Your task to perform on an android device: turn off javascript in the chrome app Image 0: 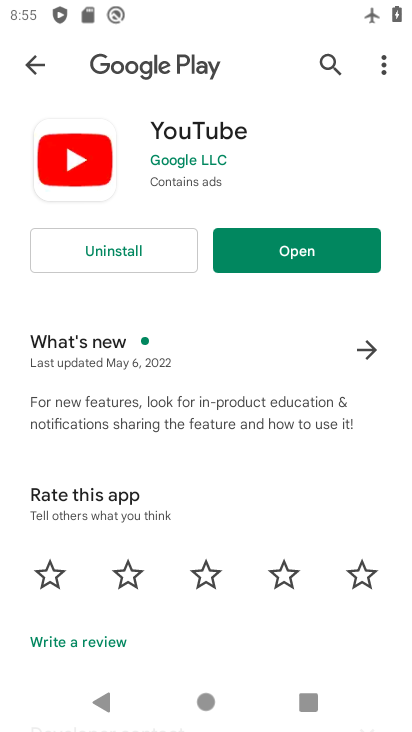
Step 0: press home button
Your task to perform on an android device: turn off javascript in the chrome app Image 1: 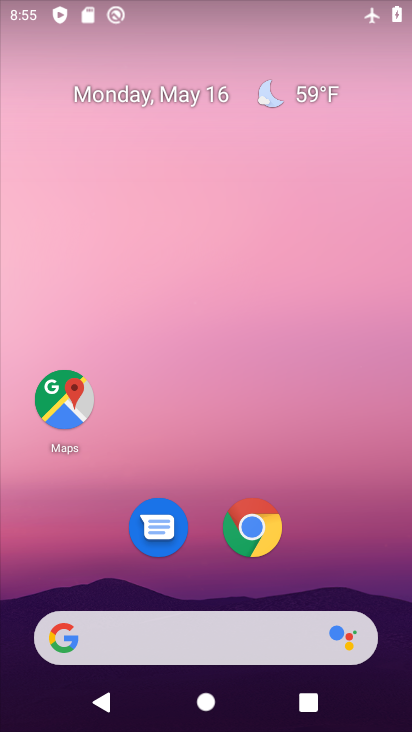
Step 1: drag from (397, 664) to (401, 295)
Your task to perform on an android device: turn off javascript in the chrome app Image 2: 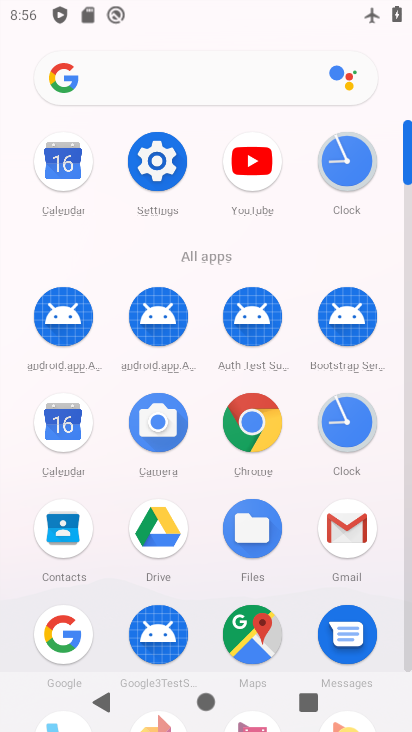
Step 2: click (252, 409)
Your task to perform on an android device: turn off javascript in the chrome app Image 3: 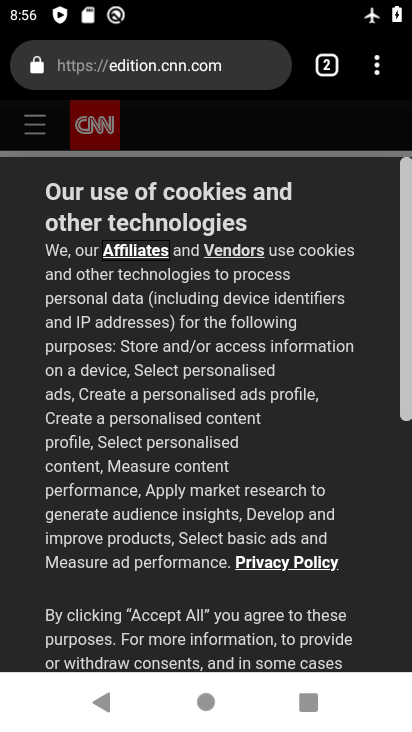
Step 3: click (378, 61)
Your task to perform on an android device: turn off javascript in the chrome app Image 4: 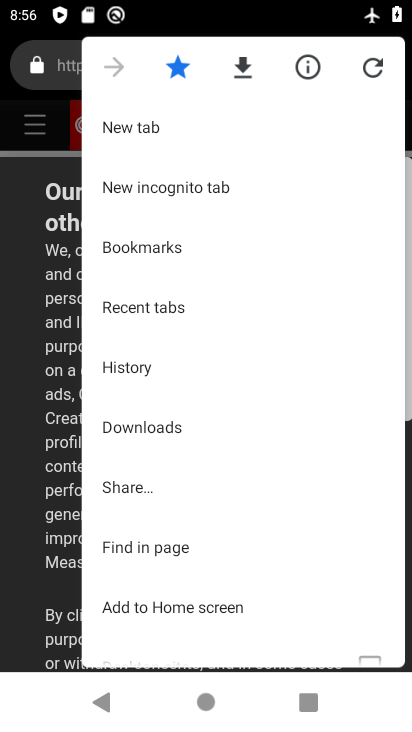
Step 4: drag from (289, 609) to (294, 238)
Your task to perform on an android device: turn off javascript in the chrome app Image 5: 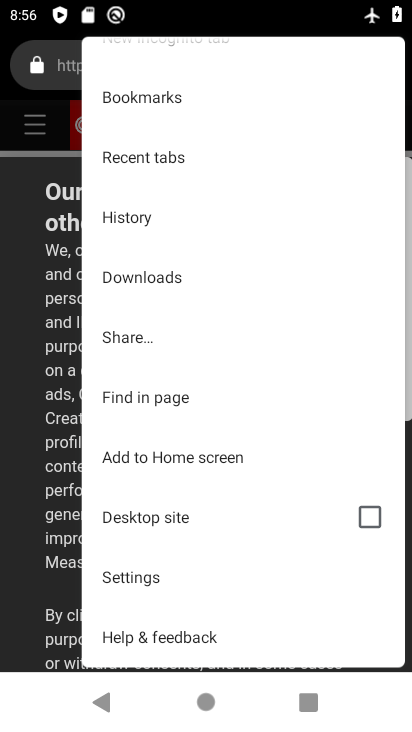
Step 5: click (140, 572)
Your task to perform on an android device: turn off javascript in the chrome app Image 6: 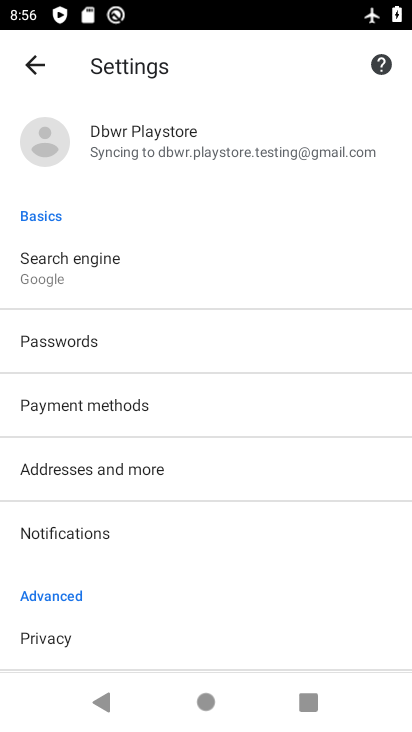
Step 6: drag from (213, 617) to (230, 334)
Your task to perform on an android device: turn off javascript in the chrome app Image 7: 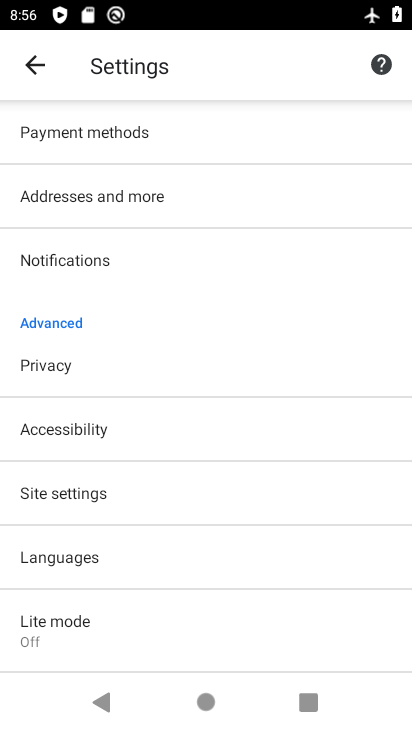
Step 7: click (68, 493)
Your task to perform on an android device: turn off javascript in the chrome app Image 8: 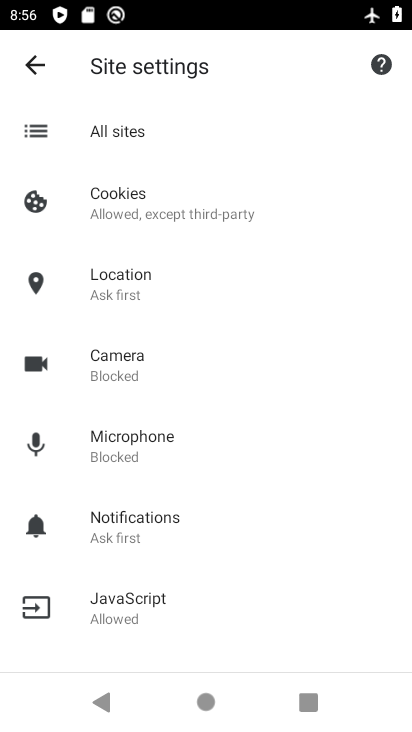
Step 8: drag from (261, 602) to (278, 395)
Your task to perform on an android device: turn off javascript in the chrome app Image 9: 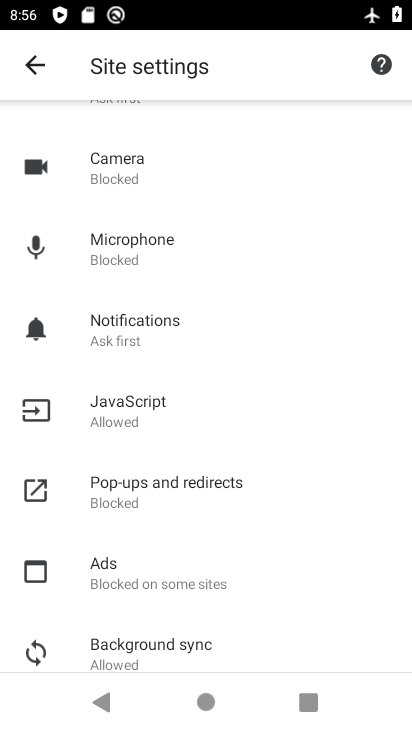
Step 9: click (122, 410)
Your task to perform on an android device: turn off javascript in the chrome app Image 10: 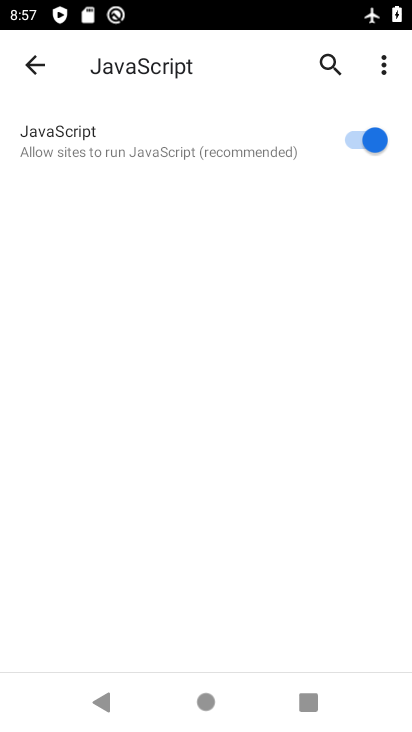
Step 10: click (349, 138)
Your task to perform on an android device: turn off javascript in the chrome app Image 11: 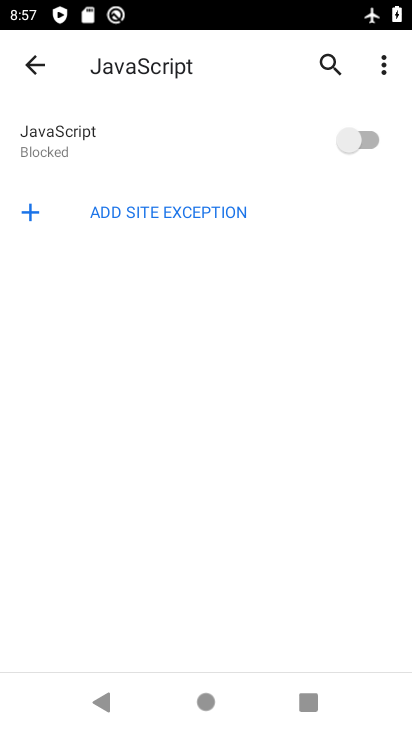
Step 11: task complete